Your task to perform on an android device: Go to location settings Image 0: 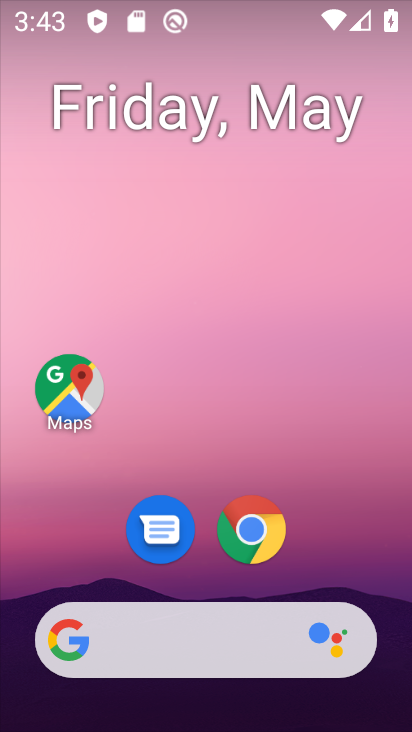
Step 0: drag from (250, 674) to (307, 334)
Your task to perform on an android device: Go to location settings Image 1: 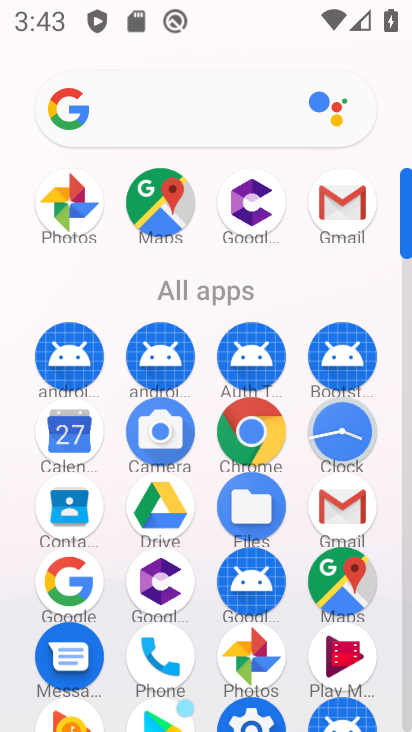
Step 1: drag from (214, 547) to (236, 355)
Your task to perform on an android device: Go to location settings Image 2: 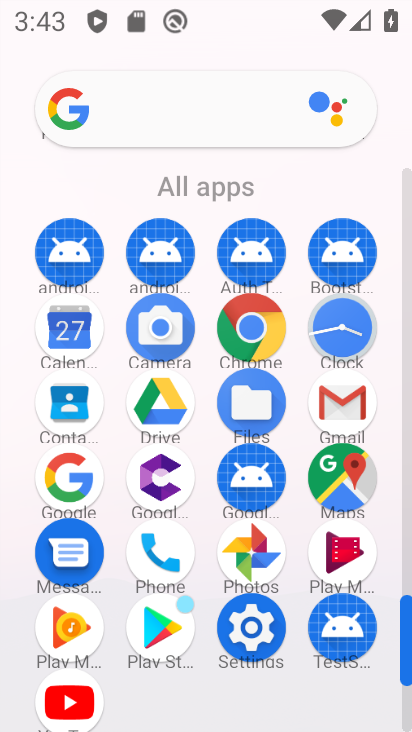
Step 2: click (264, 643)
Your task to perform on an android device: Go to location settings Image 3: 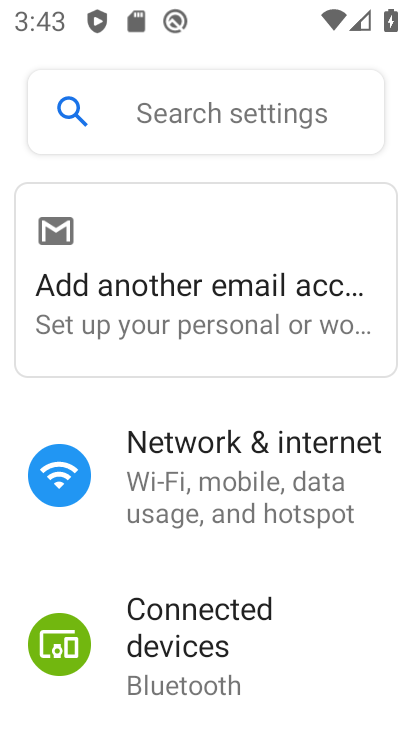
Step 3: drag from (264, 656) to (332, 235)
Your task to perform on an android device: Go to location settings Image 4: 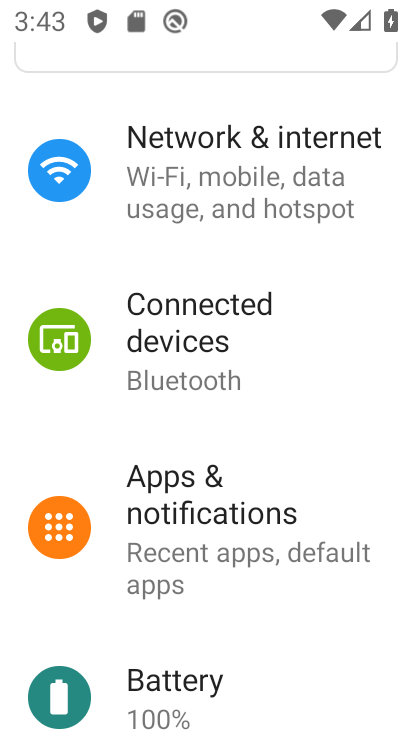
Step 4: drag from (226, 671) to (288, 346)
Your task to perform on an android device: Go to location settings Image 5: 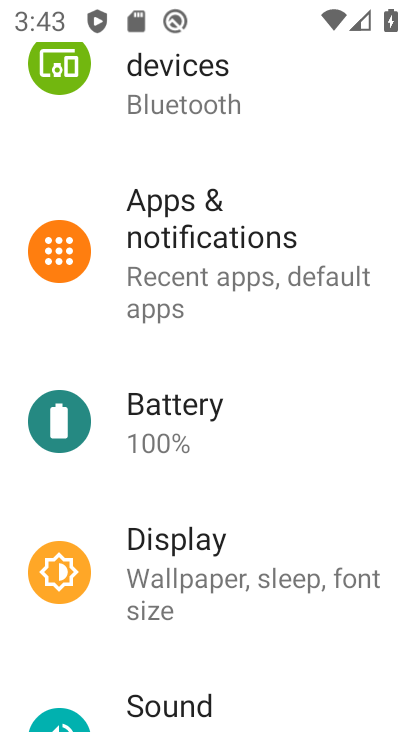
Step 5: drag from (247, 687) to (289, 423)
Your task to perform on an android device: Go to location settings Image 6: 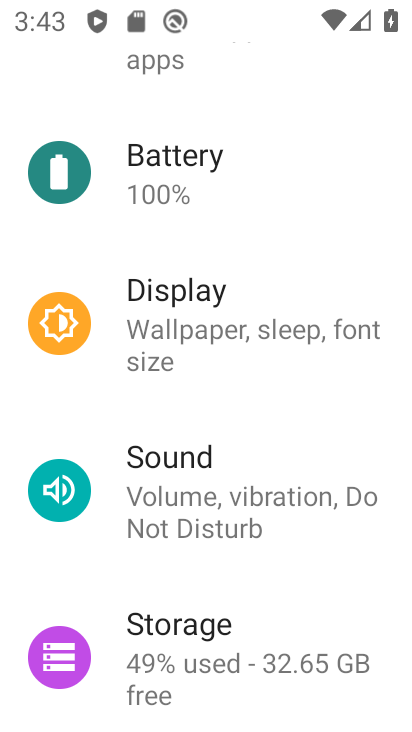
Step 6: drag from (208, 639) to (282, 221)
Your task to perform on an android device: Go to location settings Image 7: 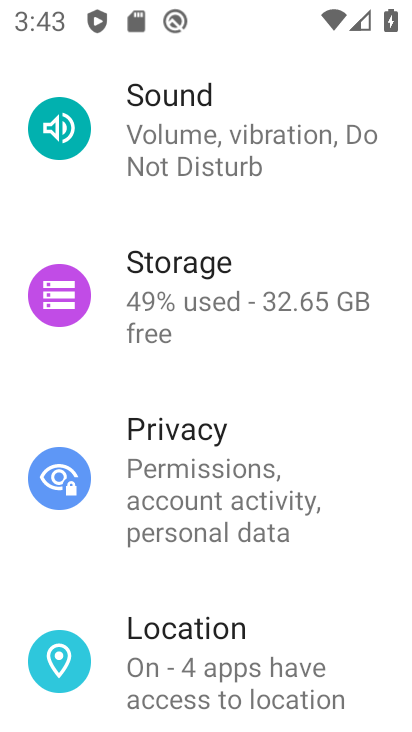
Step 7: drag from (234, 606) to (313, 265)
Your task to perform on an android device: Go to location settings Image 8: 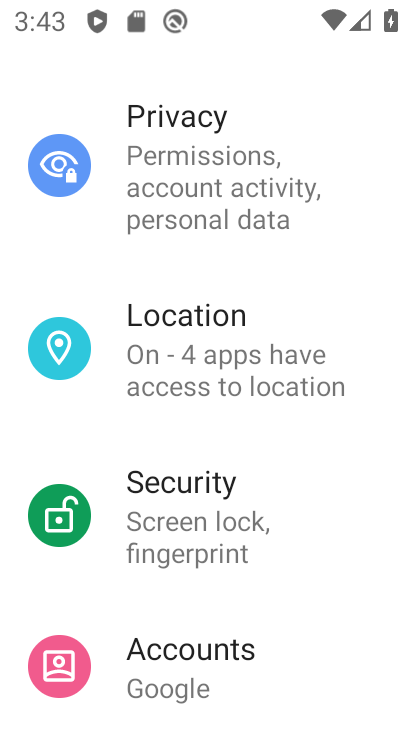
Step 8: click (309, 325)
Your task to perform on an android device: Go to location settings Image 9: 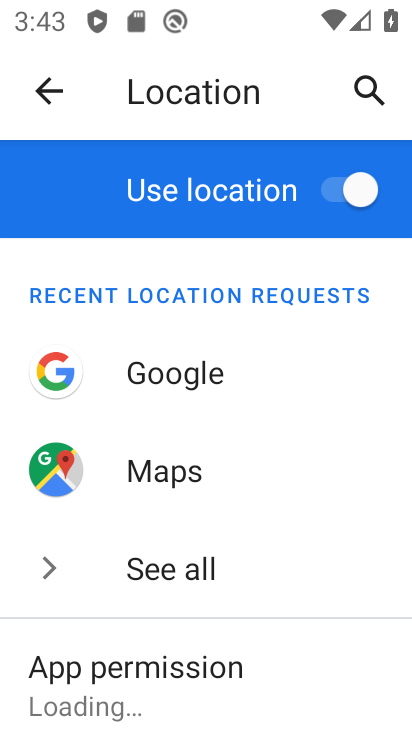
Step 9: task complete